Your task to perform on an android device: Go to Google maps Image 0: 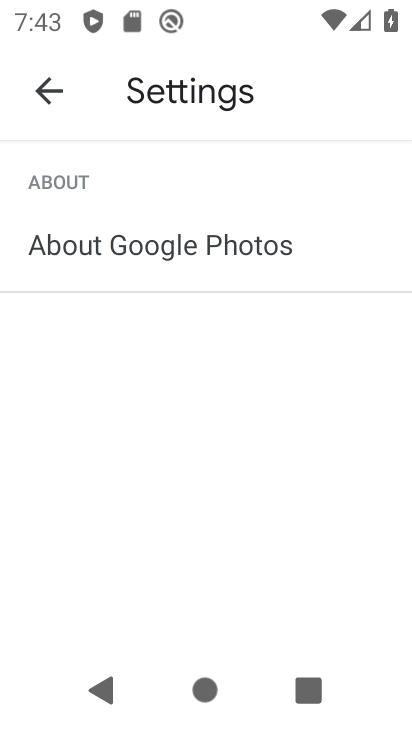
Step 0: press home button
Your task to perform on an android device: Go to Google maps Image 1: 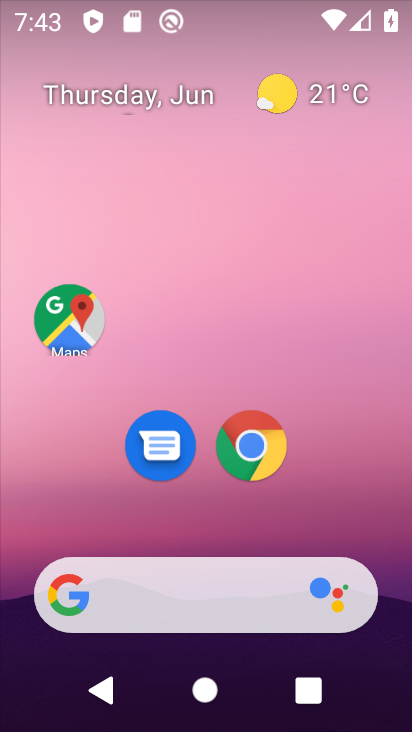
Step 1: drag from (304, 351) to (324, 130)
Your task to perform on an android device: Go to Google maps Image 2: 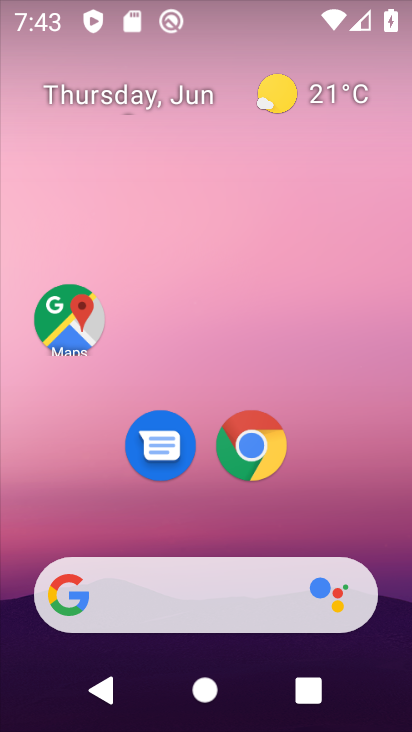
Step 2: drag from (294, 514) to (316, 148)
Your task to perform on an android device: Go to Google maps Image 3: 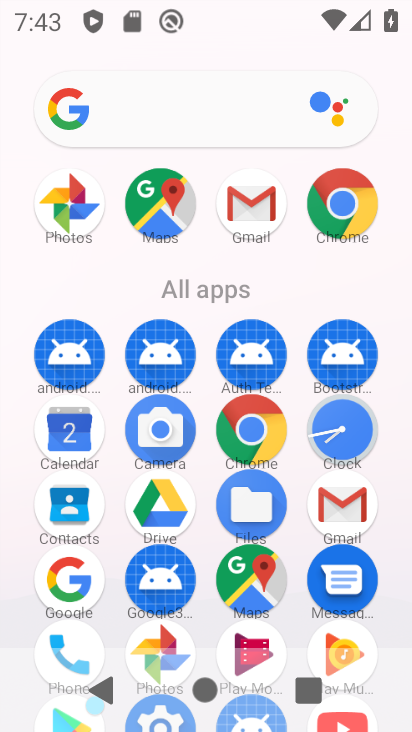
Step 3: drag from (304, 574) to (305, 345)
Your task to perform on an android device: Go to Google maps Image 4: 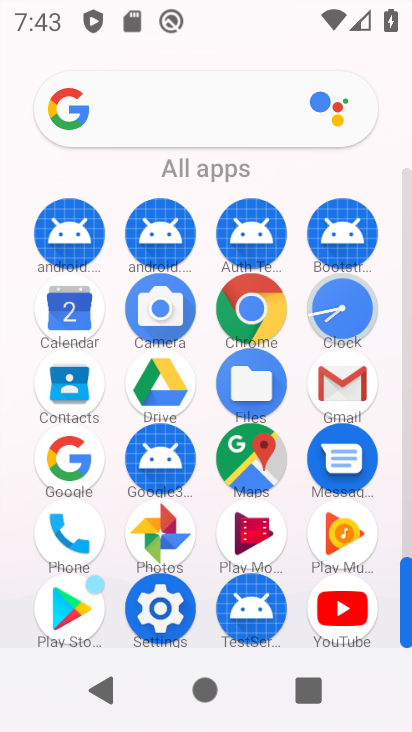
Step 4: click (266, 453)
Your task to perform on an android device: Go to Google maps Image 5: 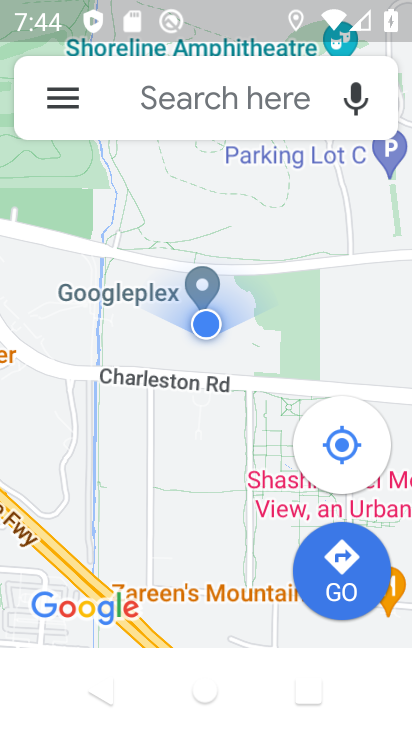
Step 5: task complete